Your task to perform on an android device: Go to Reddit.com Image 0: 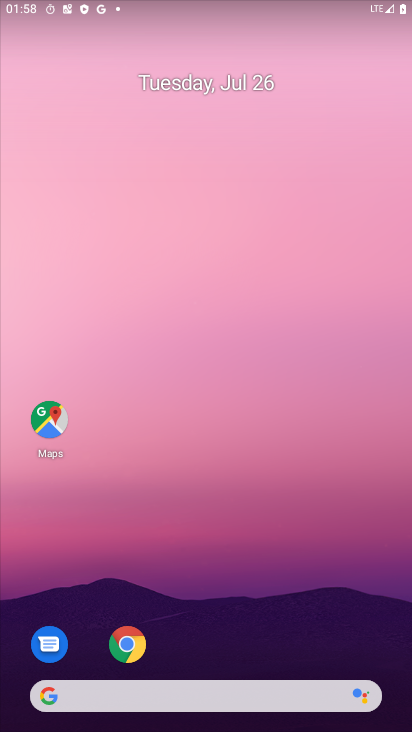
Step 0: click (124, 647)
Your task to perform on an android device: Go to Reddit.com Image 1: 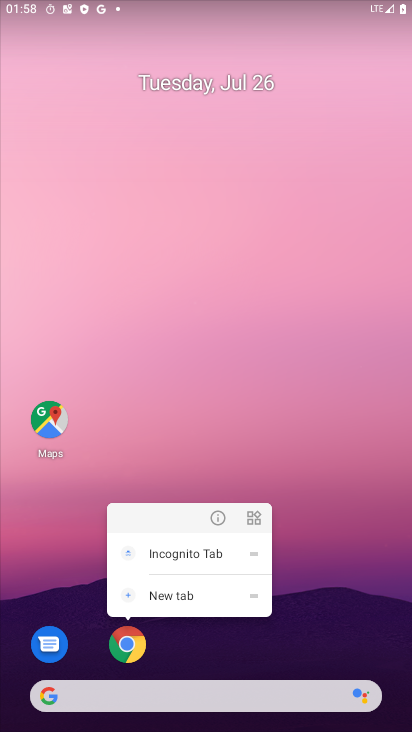
Step 1: click (133, 645)
Your task to perform on an android device: Go to Reddit.com Image 2: 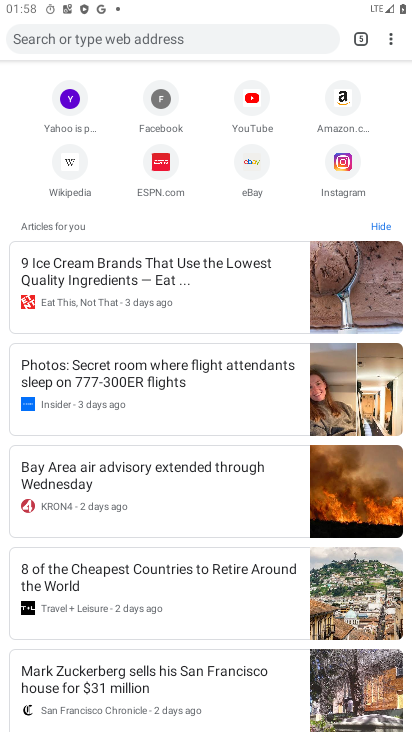
Step 2: click (168, 42)
Your task to perform on an android device: Go to Reddit.com Image 3: 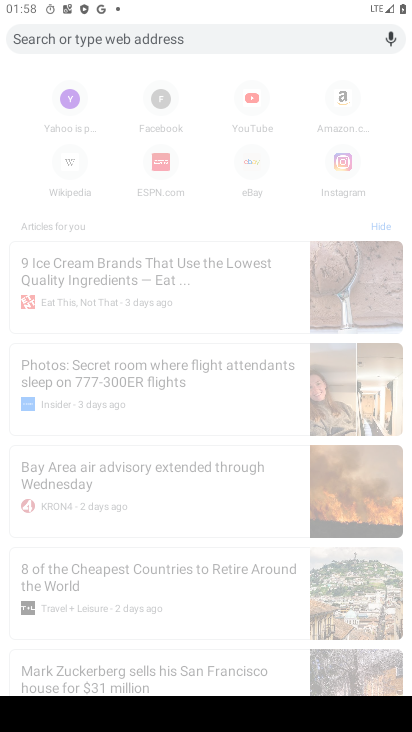
Step 3: type "reddit.com"
Your task to perform on an android device: Go to Reddit.com Image 4: 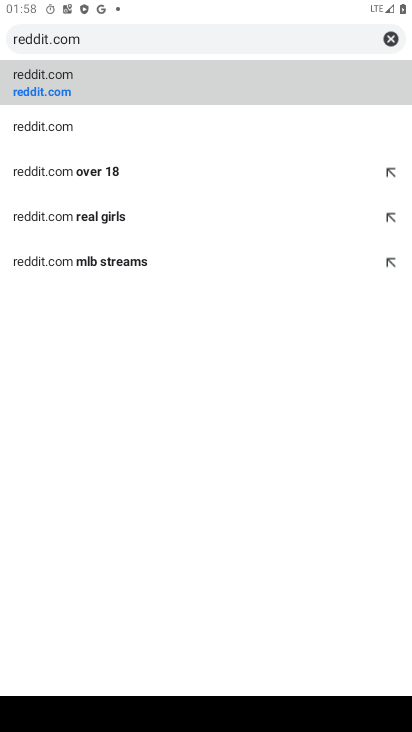
Step 4: click (34, 93)
Your task to perform on an android device: Go to Reddit.com Image 5: 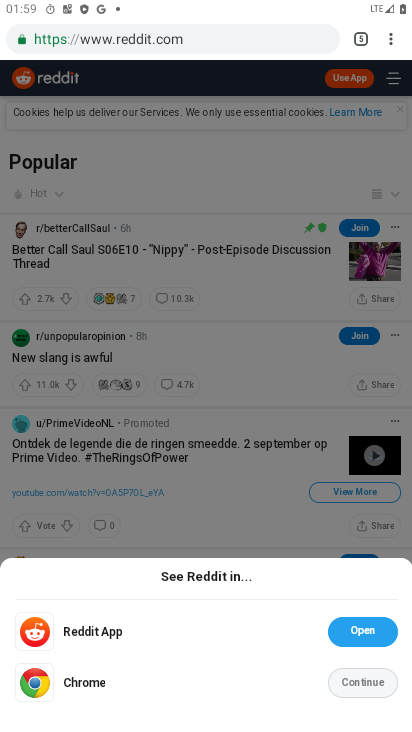
Step 5: task complete